Your task to perform on an android device: install app "ZOOM Cloud Meetings" Image 0: 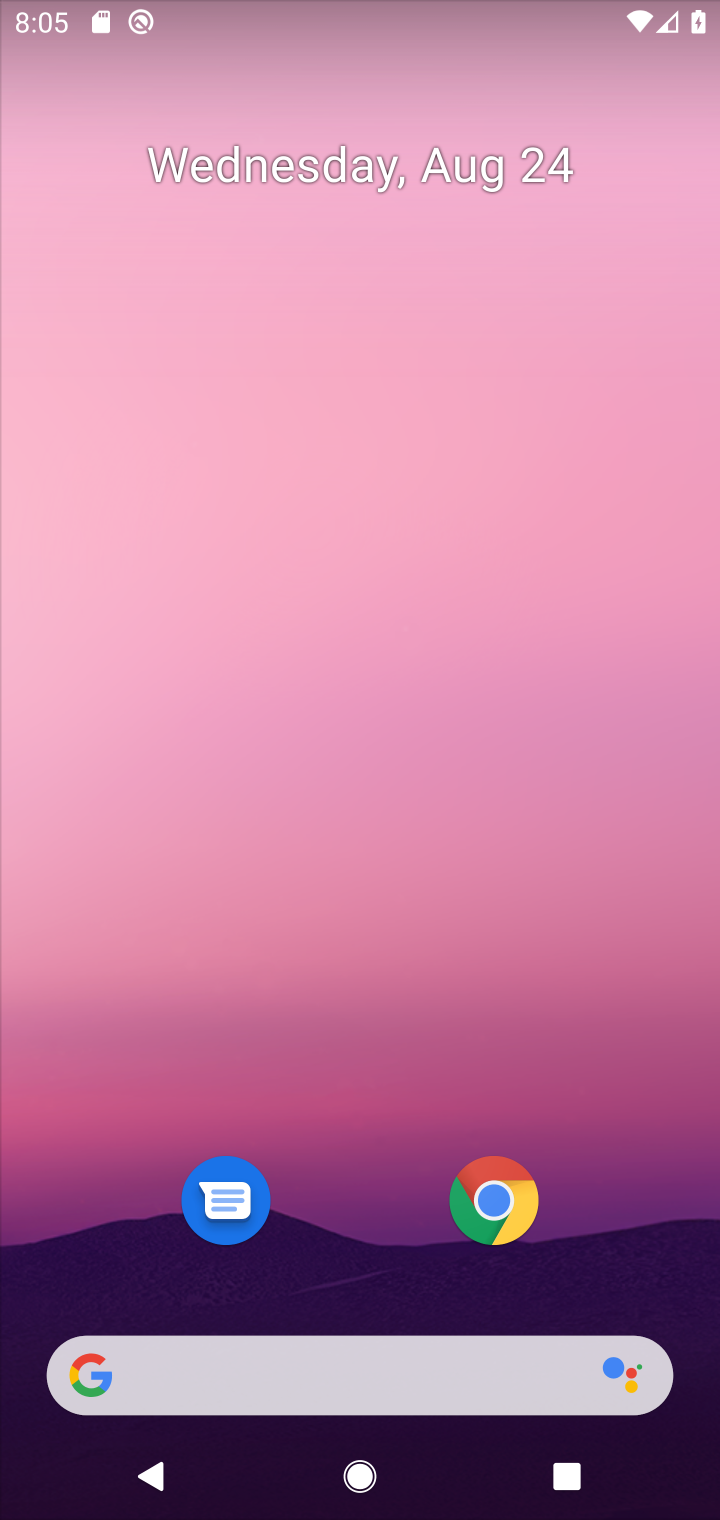
Step 0: drag from (190, 1077) to (100, 41)
Your task to perform on an android device: install app "ZOOM Cloud Meetings" Image 1: 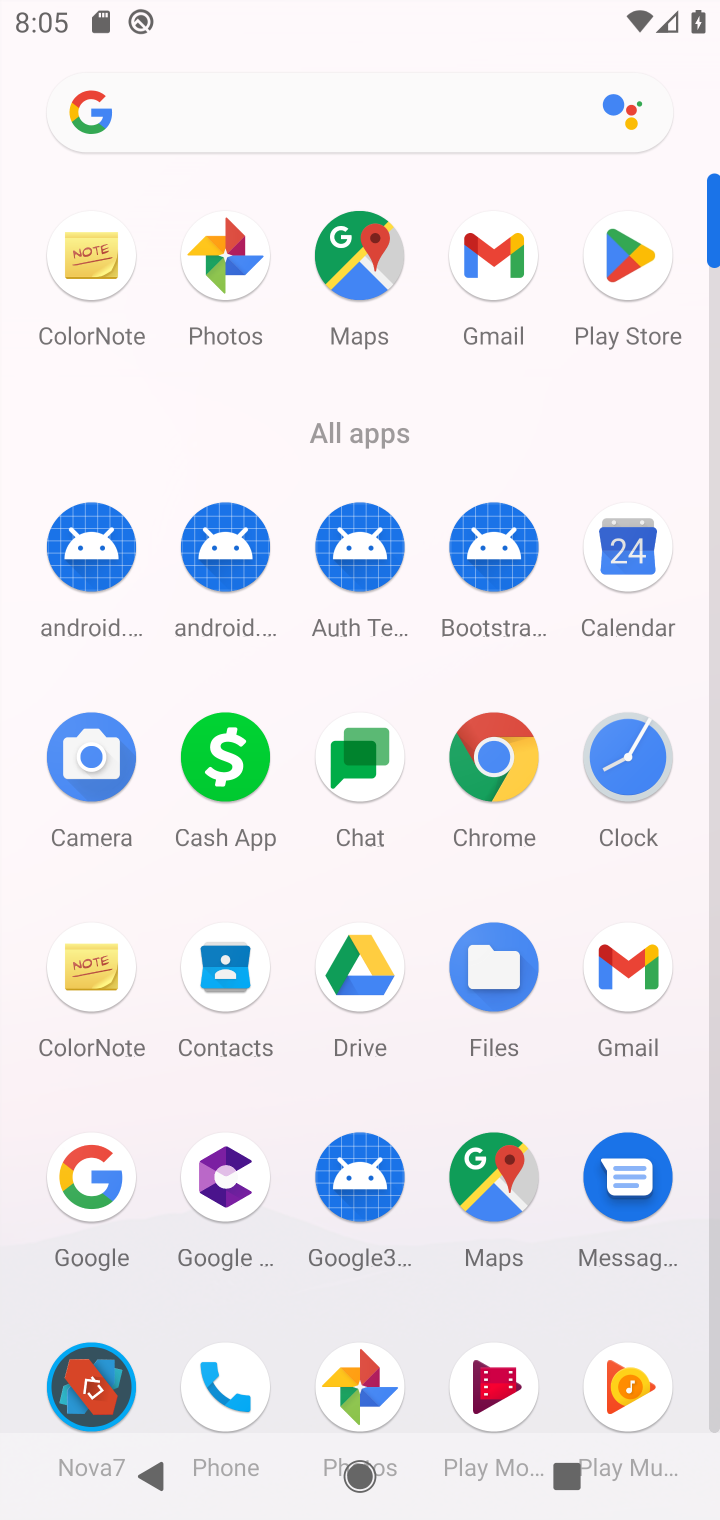
Step 1: click (629, 268)
Your task to perform on an android device: install app "ZOOM Cloud Meetings" Image 2: 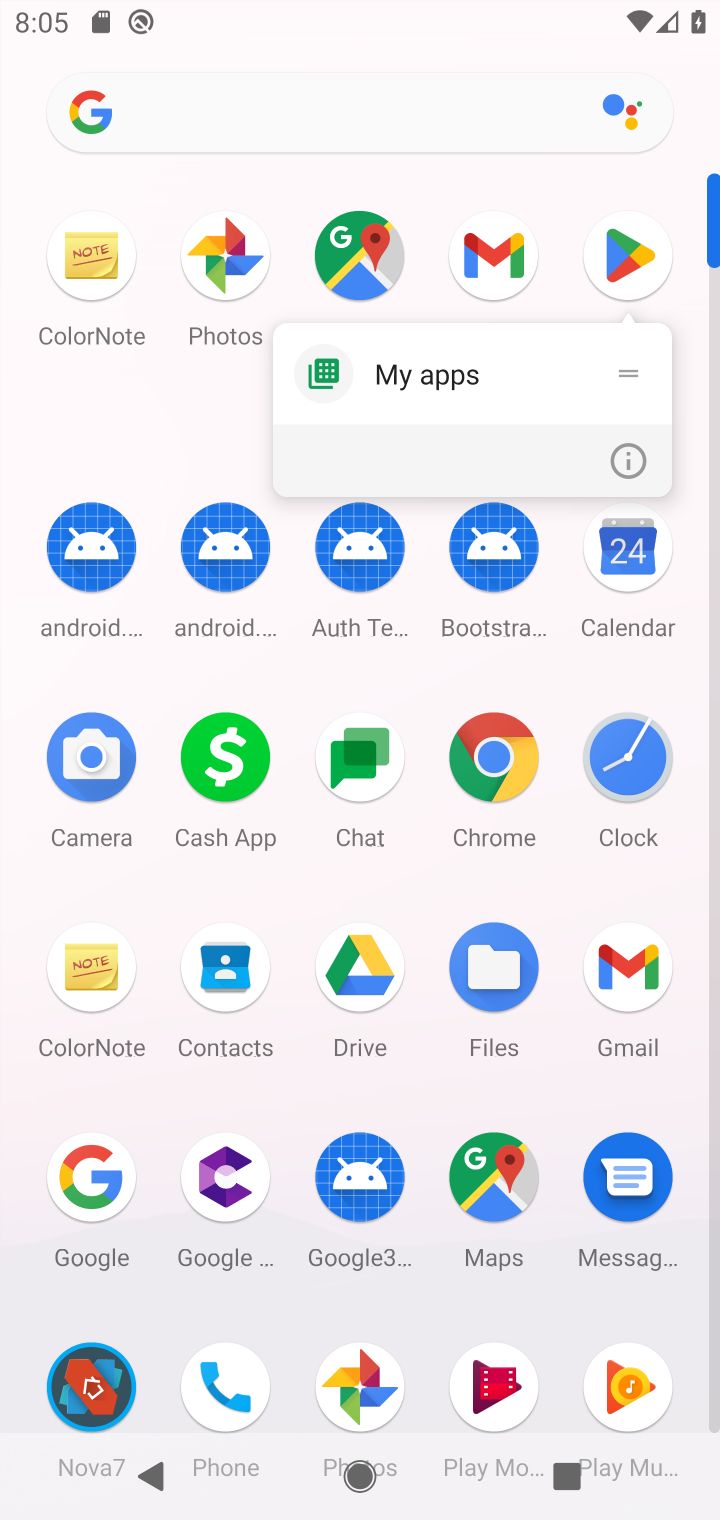
Step 2: click (627, 270)
Your task to perform on an android device: install app "ZOOM Cloud Meetings" Image 3: 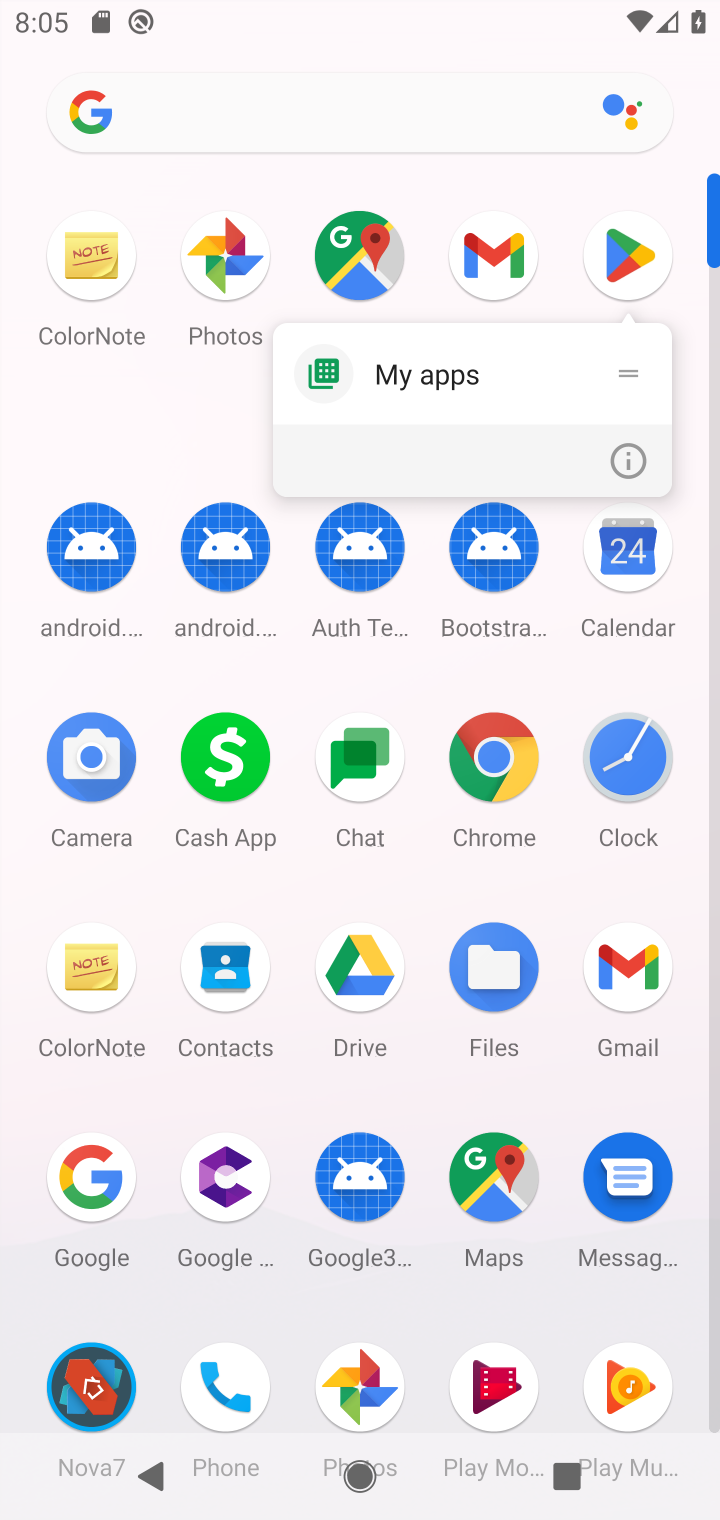
Step 3: click (621, 280)
Your task to perform on an android device: install app "ZOOM Cloud Meetings" Image 4: 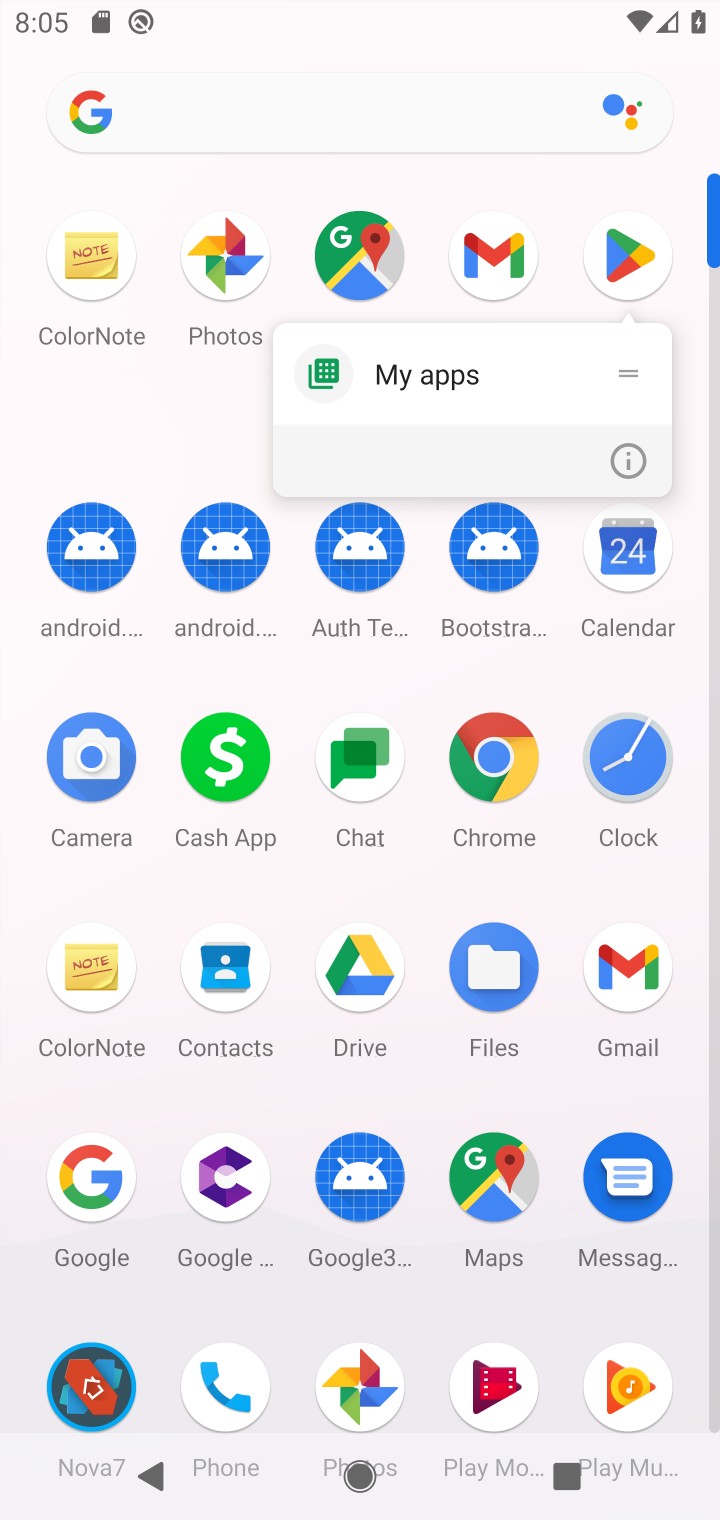
Step 4: click (619, 282)
Your task to perform on an android device: install app "ZOOM Cloud Meetings" Image 5: 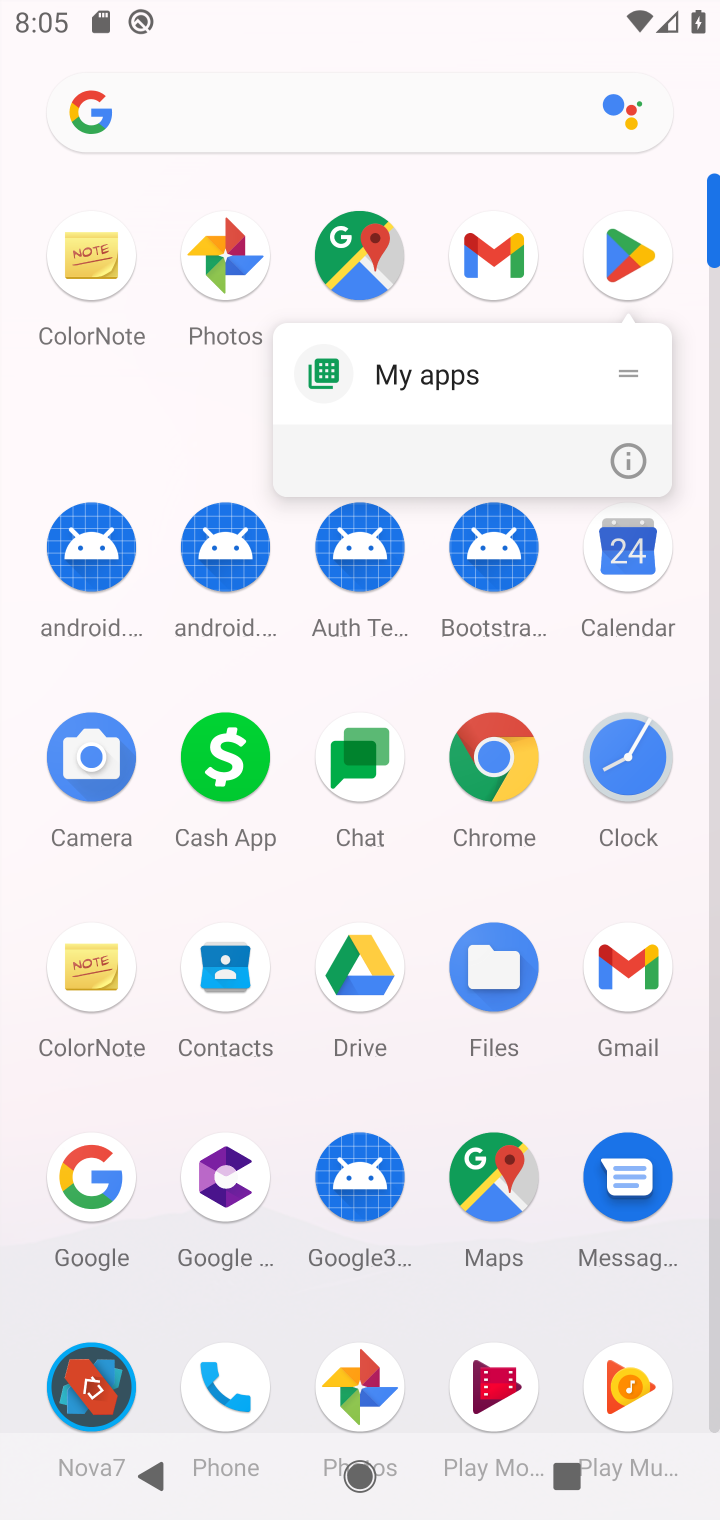
Step 5: click (617, 284)
Your task to perform on an android device: install app "ZOOM Cloud Meetings" Image 6: 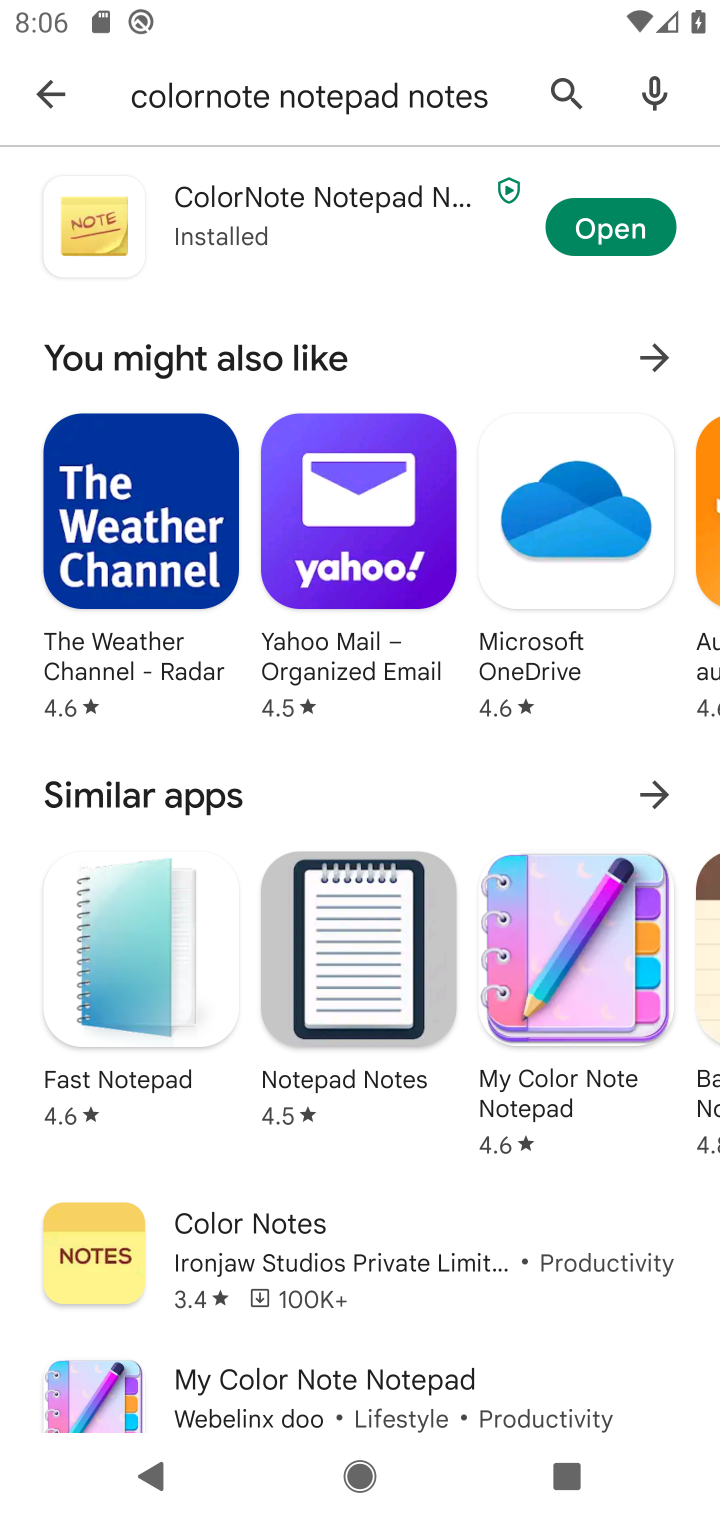
Step 6: click (234, 105)
Your task to perform on an android device: install app "ZOOM Cloud Meetings" Image 7: 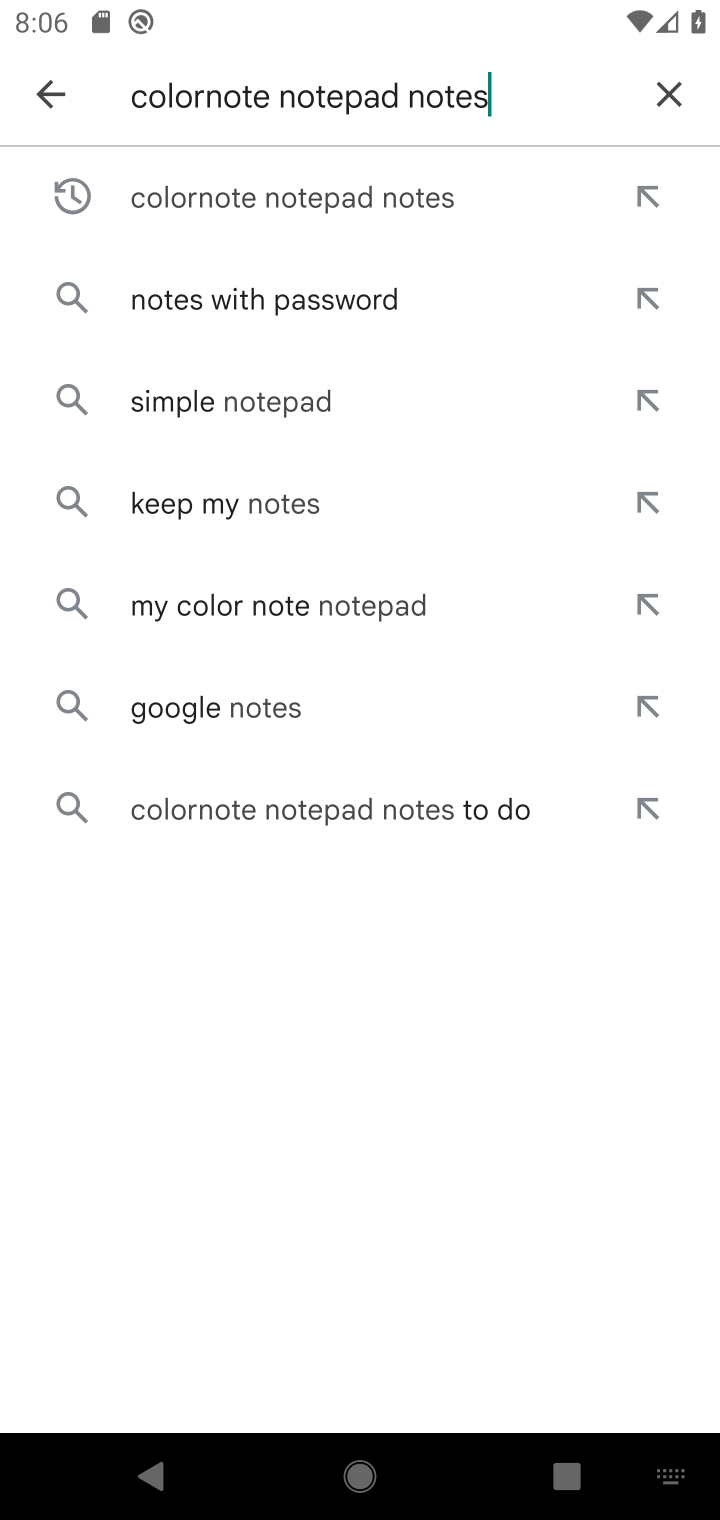
Step 7: click (665, 76)
Your task to perform on an android device: install app "ZOOM Cloud Meetings" Image 8: 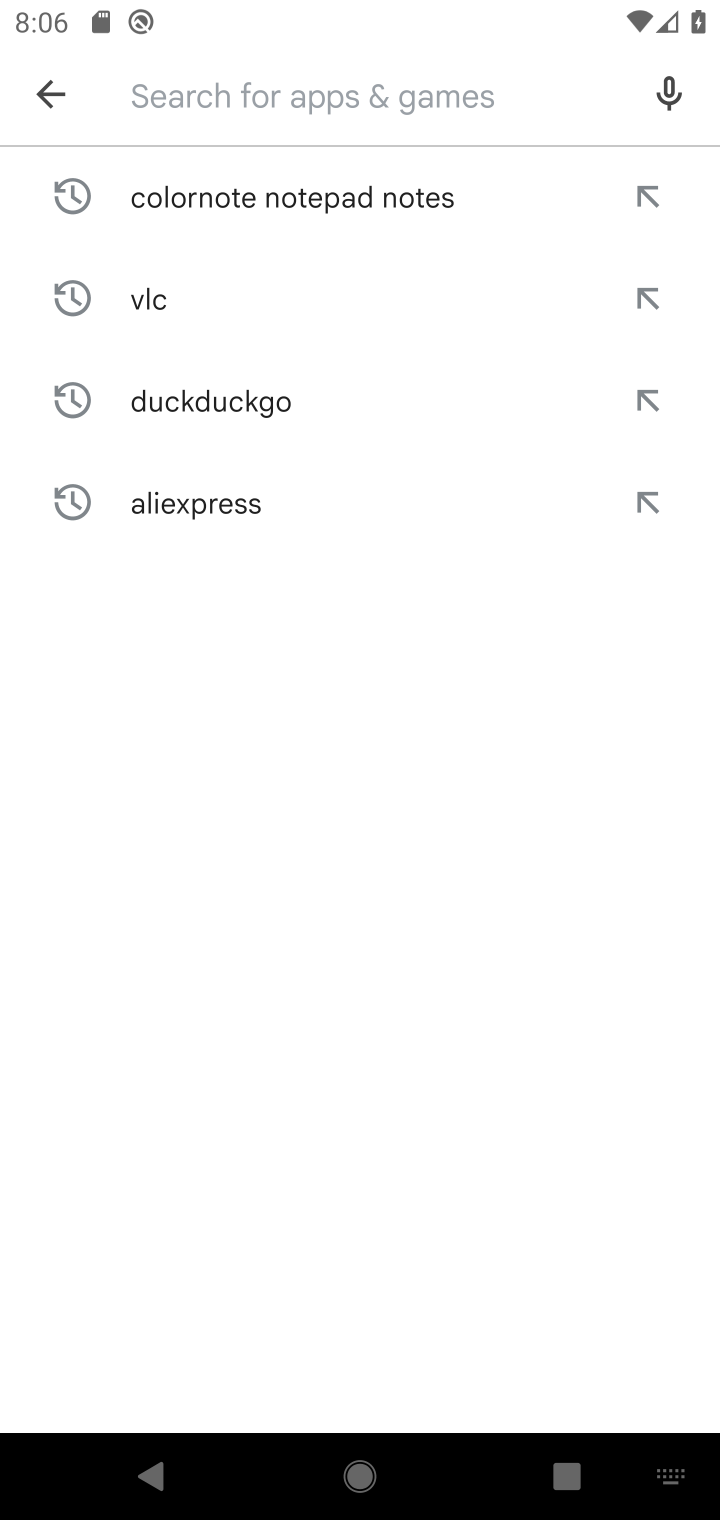
Step 8: type "zoom cloud meet"
Your task to perform on an android device: install app "ZOOM Cloud Meetings" Image 9: 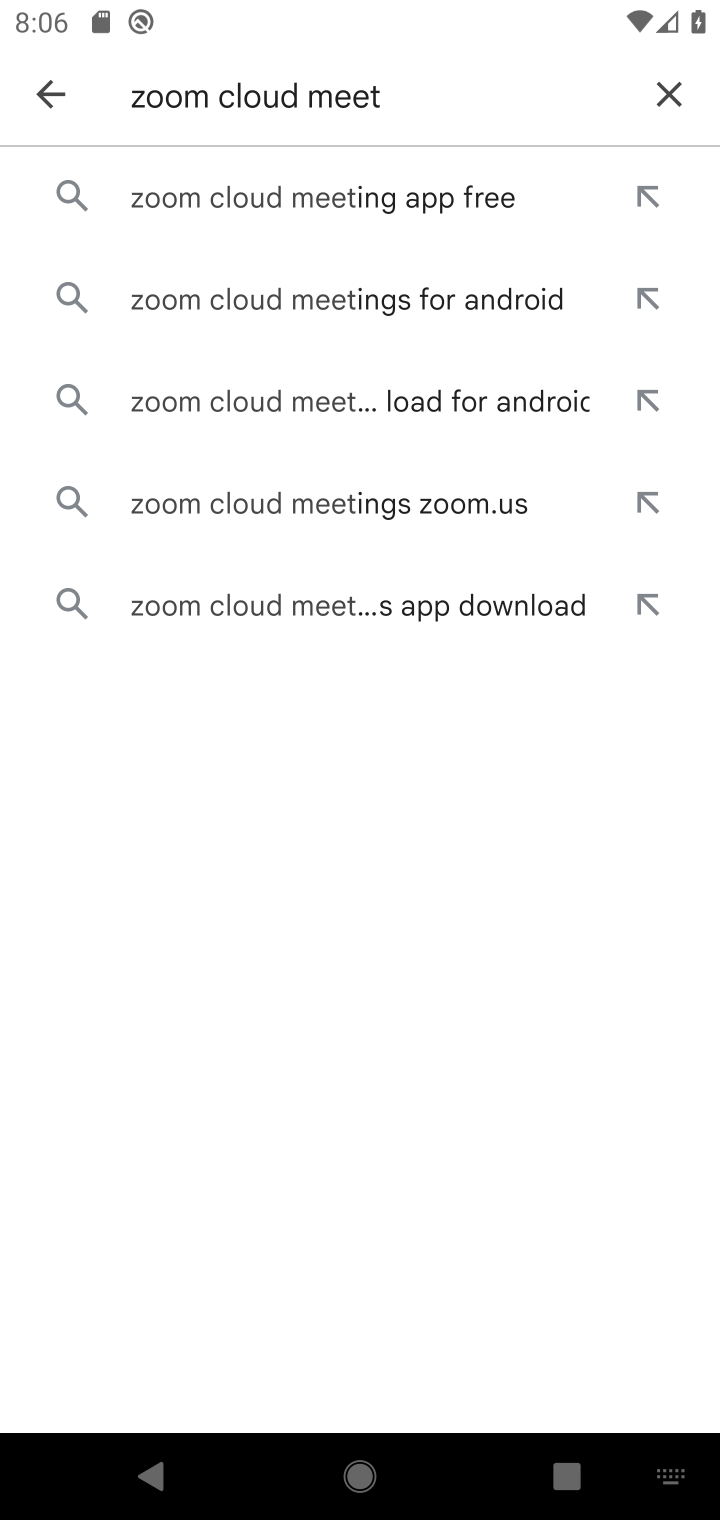
Step 9: click (263, 197)
Your task to perform on an android device: install app "ZOOM Cloud Meetings" Image 10: 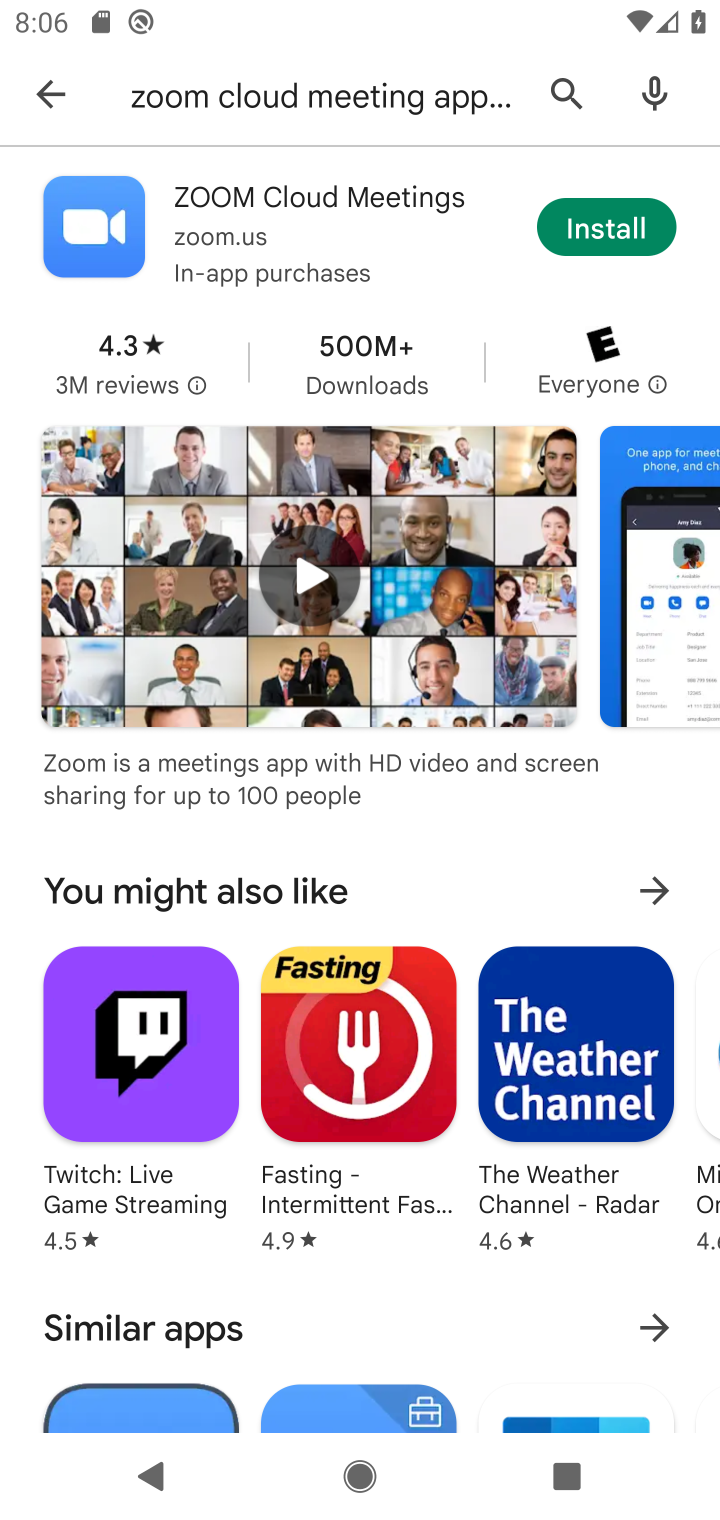
Step 10: click (628, 221)
Your task to perform on an android device: install app "ZOOM Cloud Meetings" Image 11: 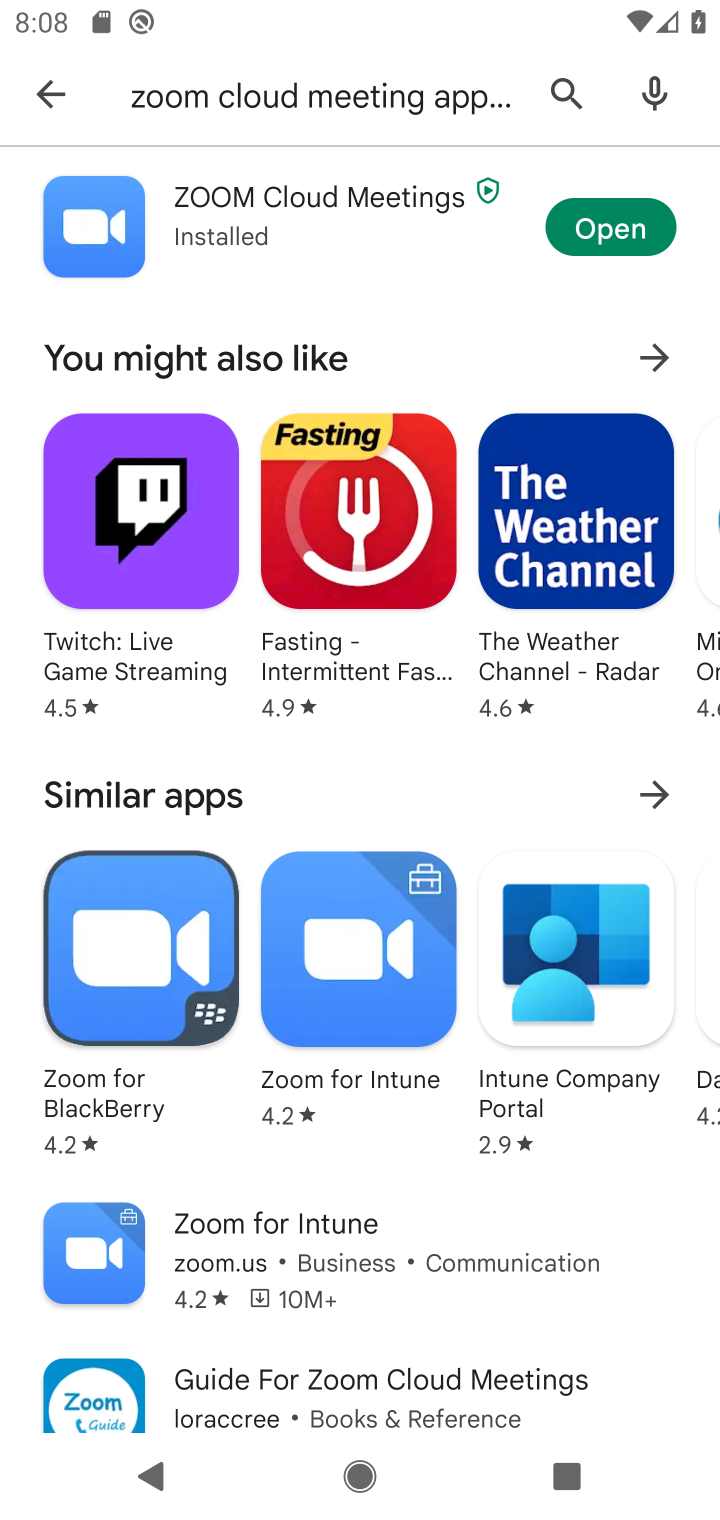
Step 11: task complete